Your task to perform on an android device: What is the recent news? Image 0: 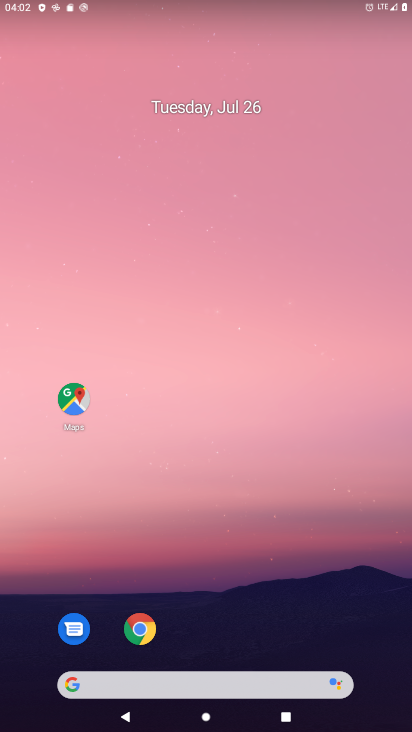
Step 0: drag from (279, 631) to (361, 77)
Your task to perform on an android device: What is the recent news? Image 1: 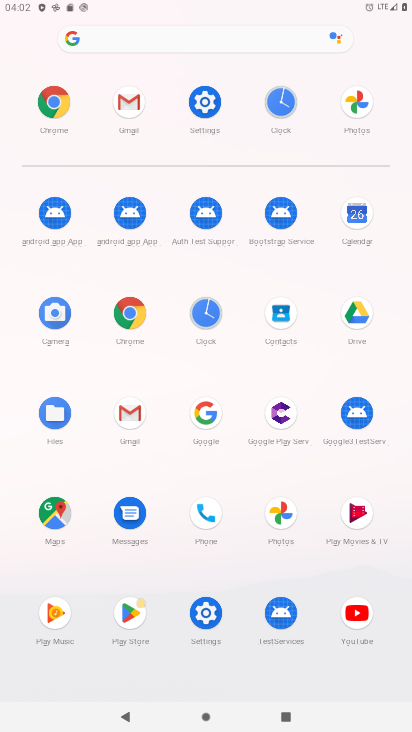
Step 1: click (135, 311)
Your task to perform on an android device: What is the recent news? Image 2: 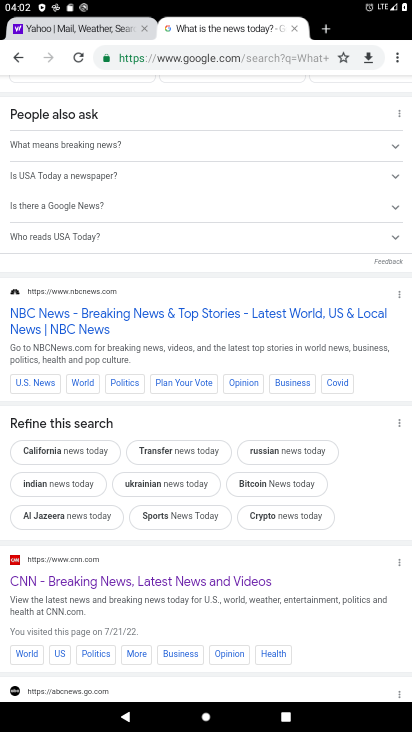
Step 2: drag from (241, 140) to (181, 609)
Your task to perform on an android device: What is the recent news? Image 3: 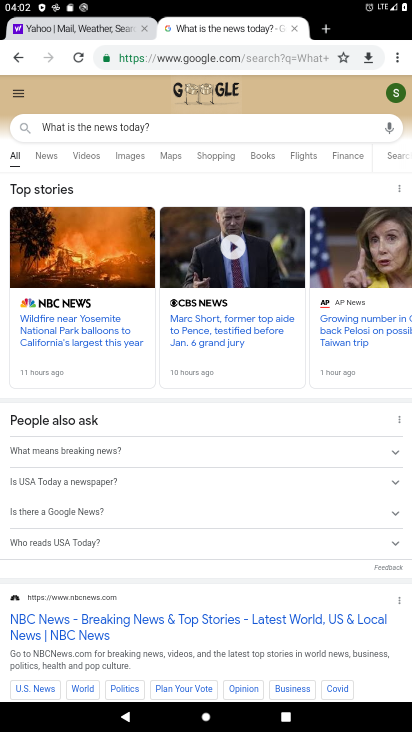
Step 3: click (44, 154)
Your task to perform on an android device: What is the recent news? Image 4: 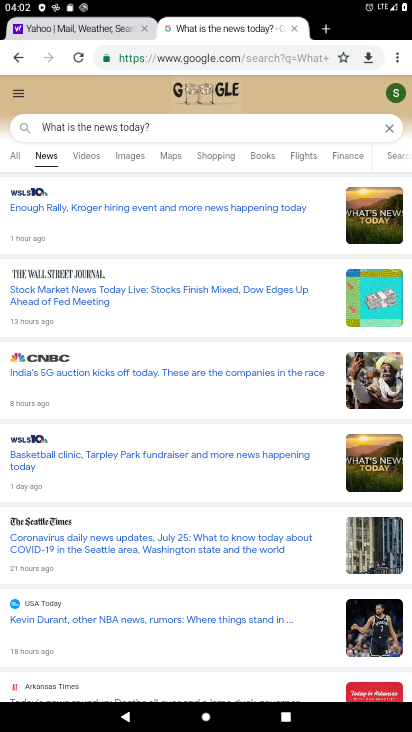
Step 4: task complete